Your task to perform on an android device: Open network settings Image 0: 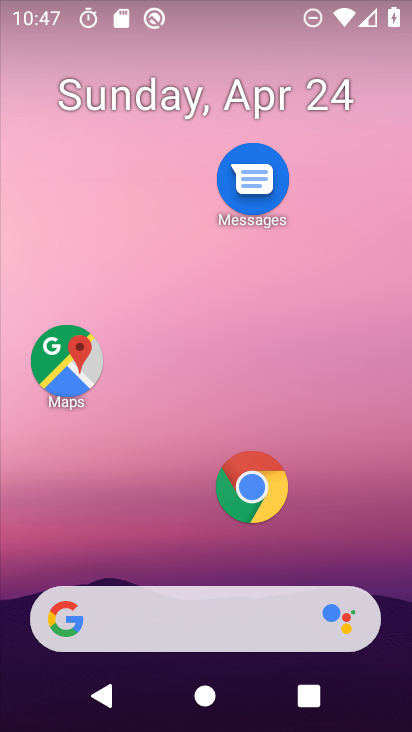
Step 0: click (259, 487)
Your task to perform on an android device: Open network settings Image 1: 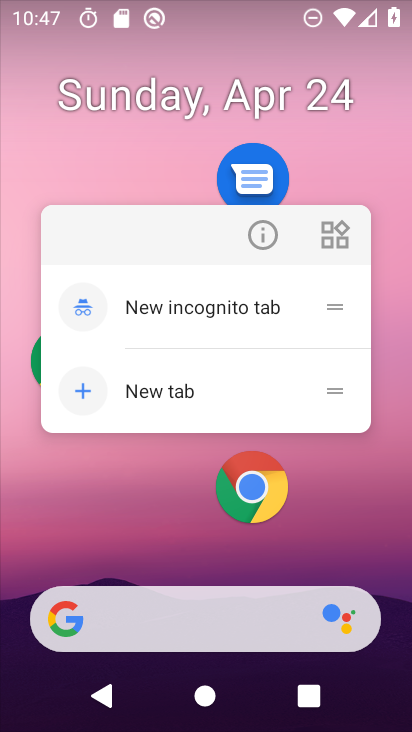
Step 1: click (263, 494)
Your task to perform on an android device: Open network settings Image 2: 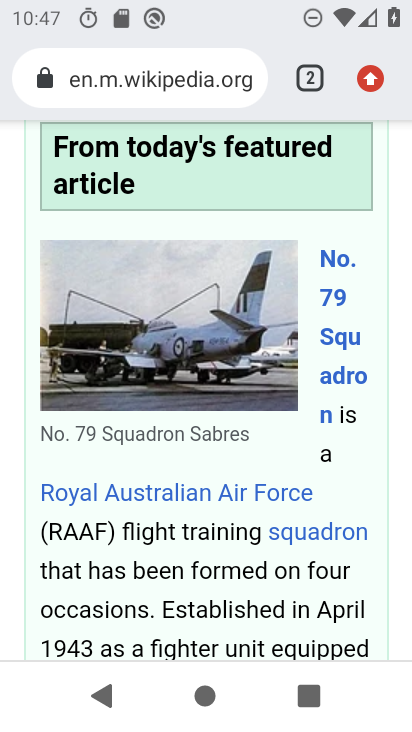
Step 2: press home button
Your task to perform on an android device: Open network settings Image 3: 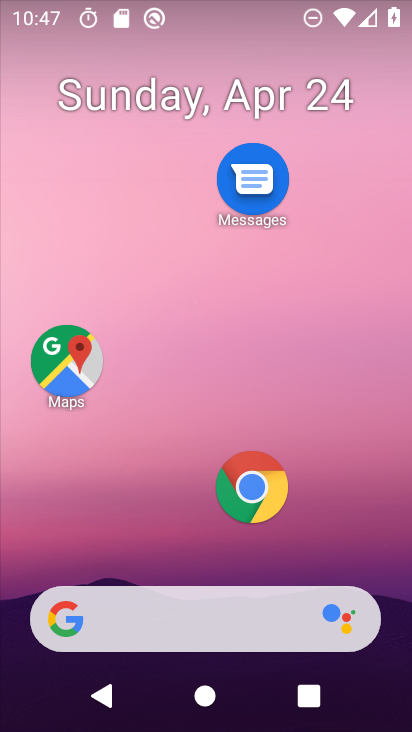
Step 3: drag from (167, 509) to (305, 16)
Your task to perform on an android device: Open network settings Image 4: 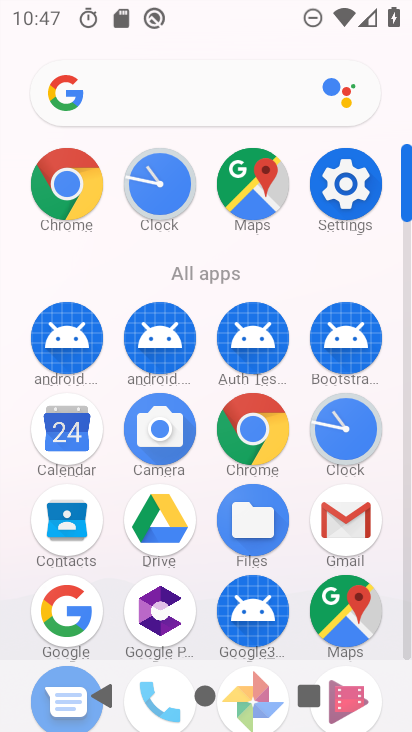
Step 4: click (350, 204)
Your task to perform on an android device: Open network settings Image 5: 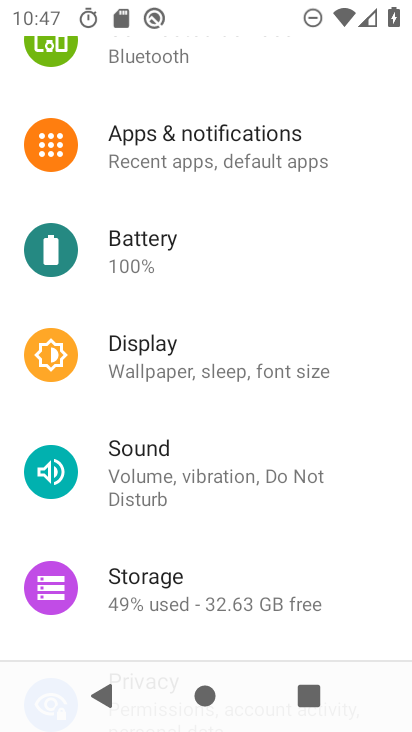
Step 5: drag from (270, 216) to (229, 726)
Your task to perform on an android device: Open network settings Image 6: 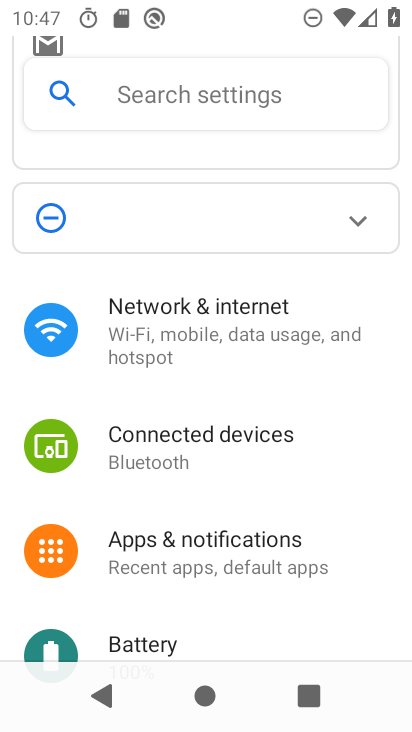
Step 6: click (174, 338)
Your task to perform on an android device: Open network settings Image 7: 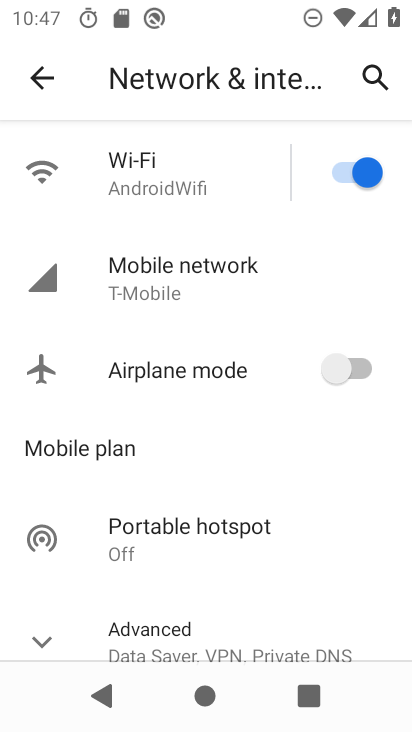
Step 7: task complete